Your task to perform on an android device: check android version Image 0: 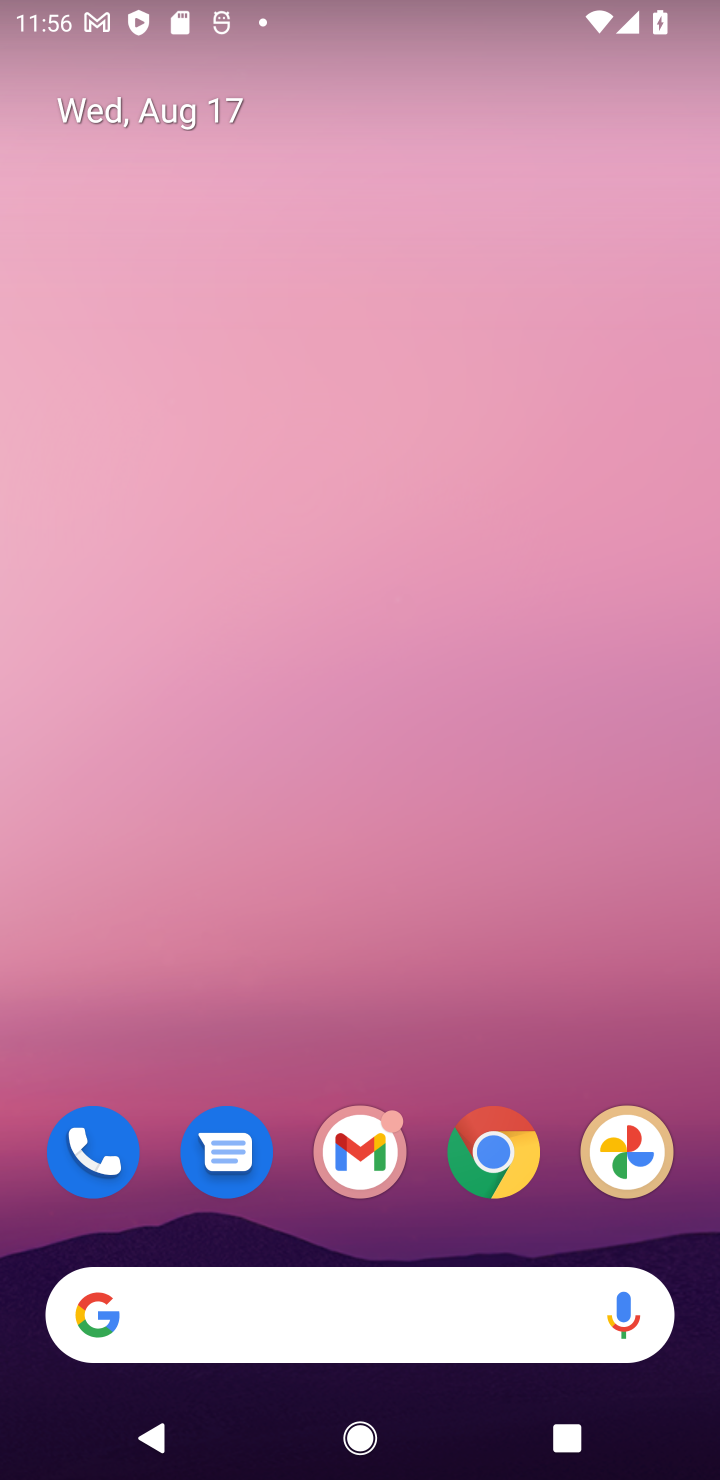
Step 0: drag from (579, 1179) to (357, 74)
Your task to perform on an android device: check android version Image 1: 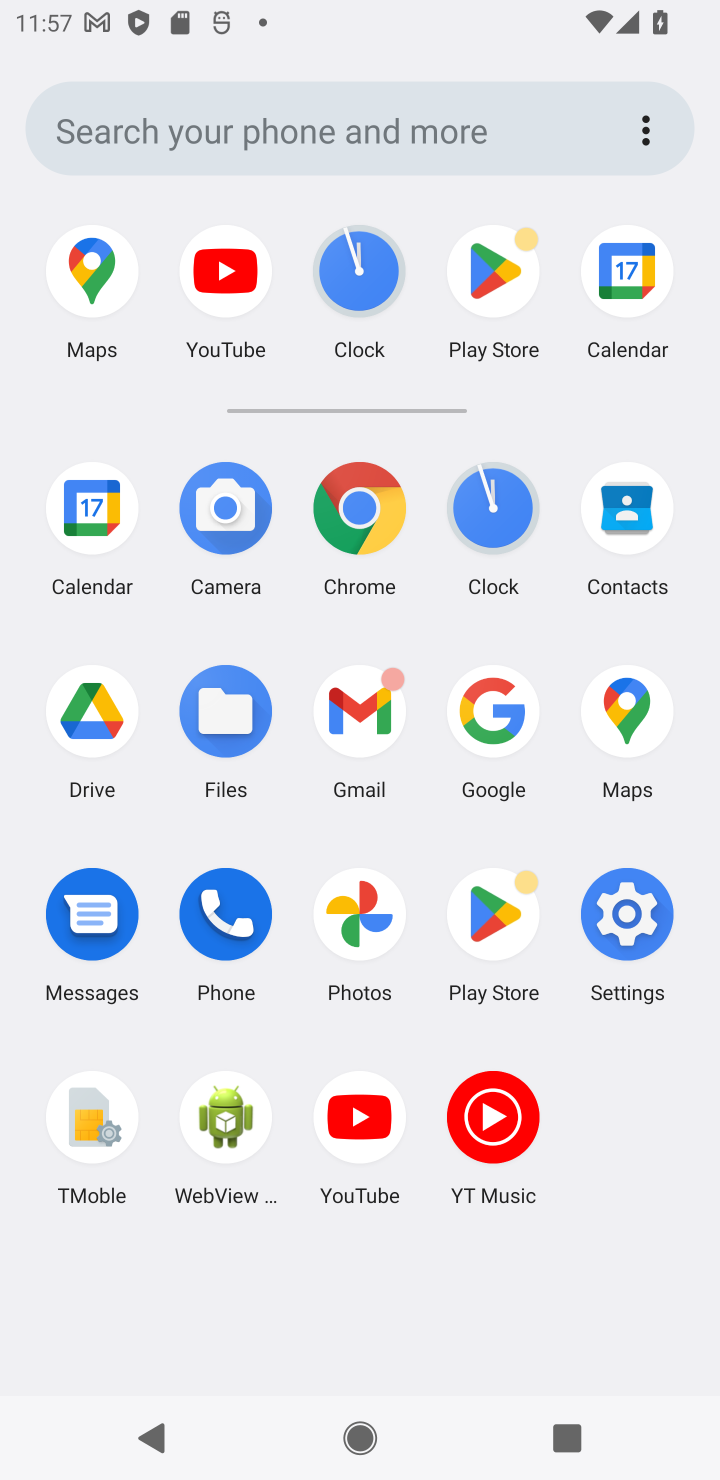
Step 1: click (612, 923)
Your task to perform on an android device: check android version Image 2: 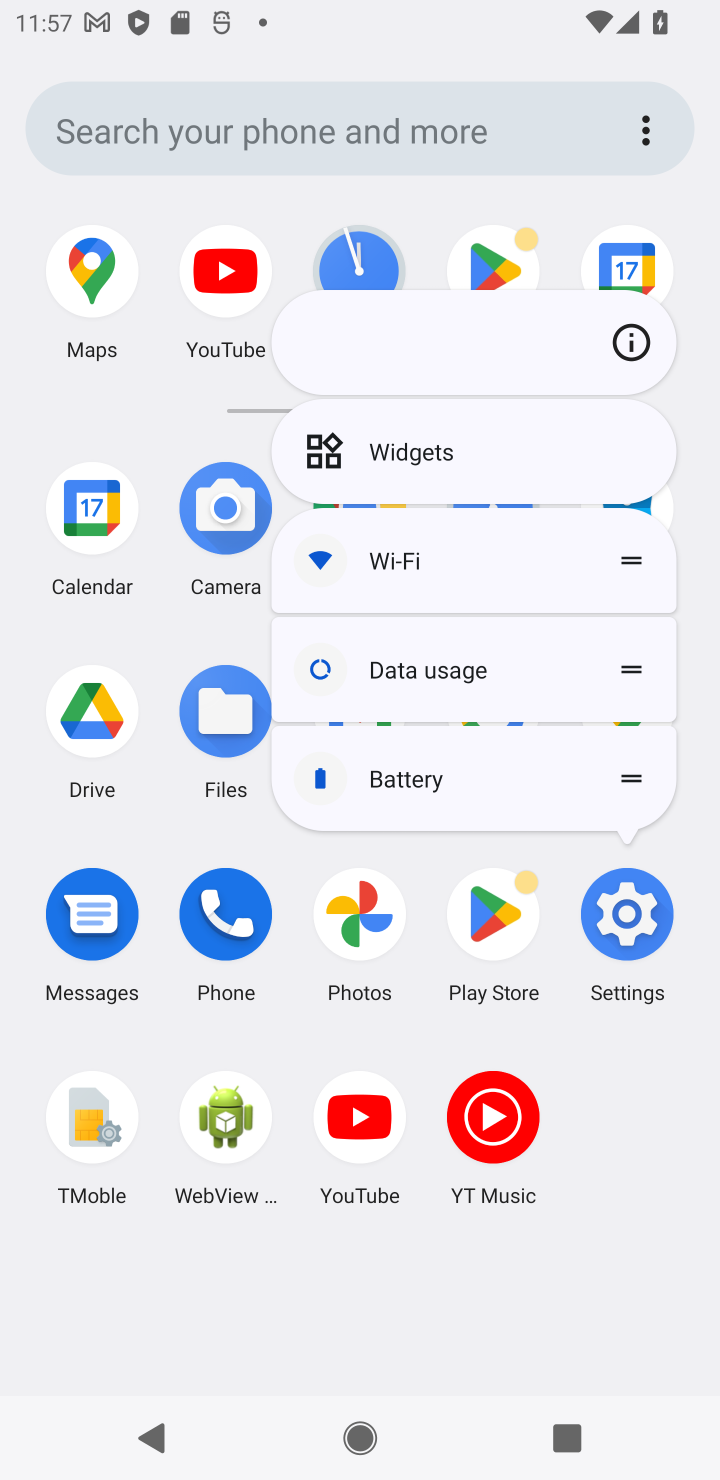
Step 2: click (616, 924)
Your task to perform on an android device: check android version Image 3: 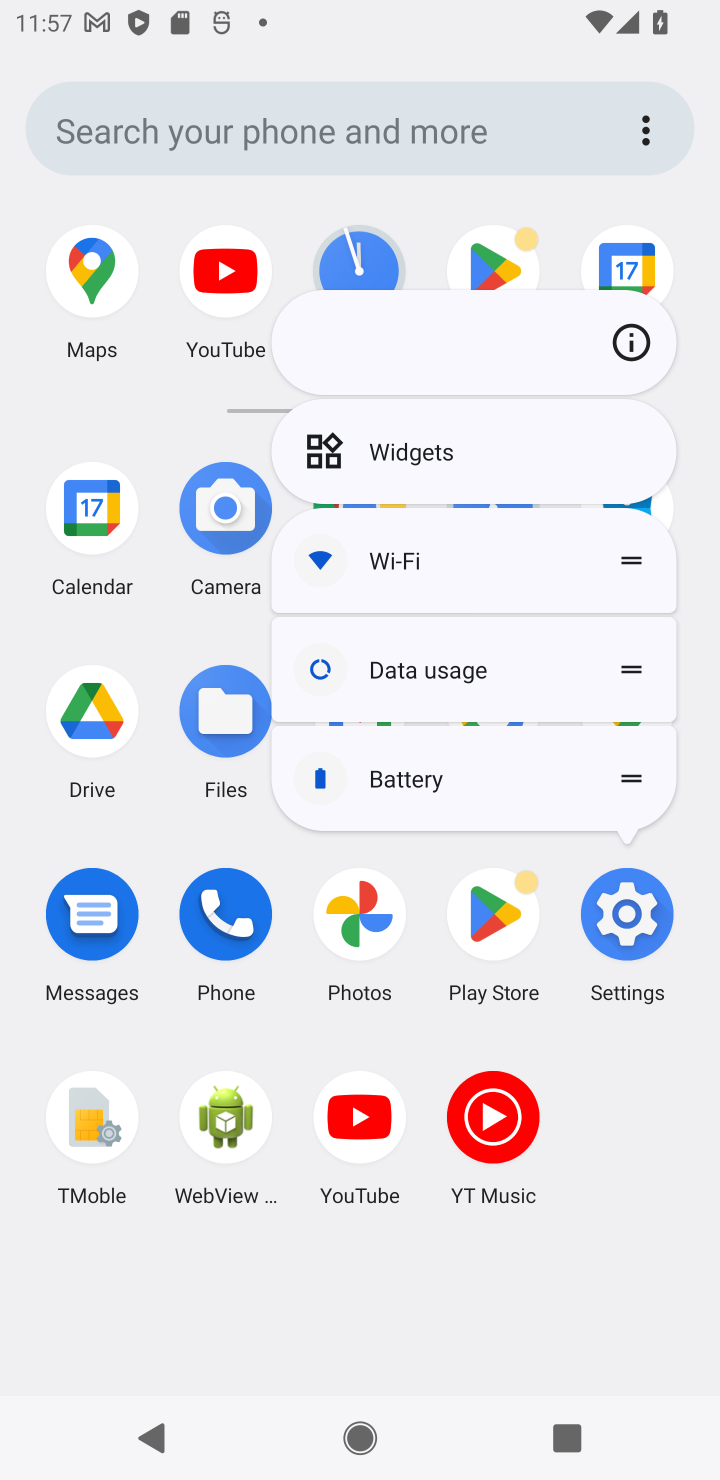
Step 3: click (656, 943)
Your task to perform on an android device: check android version Image 4: 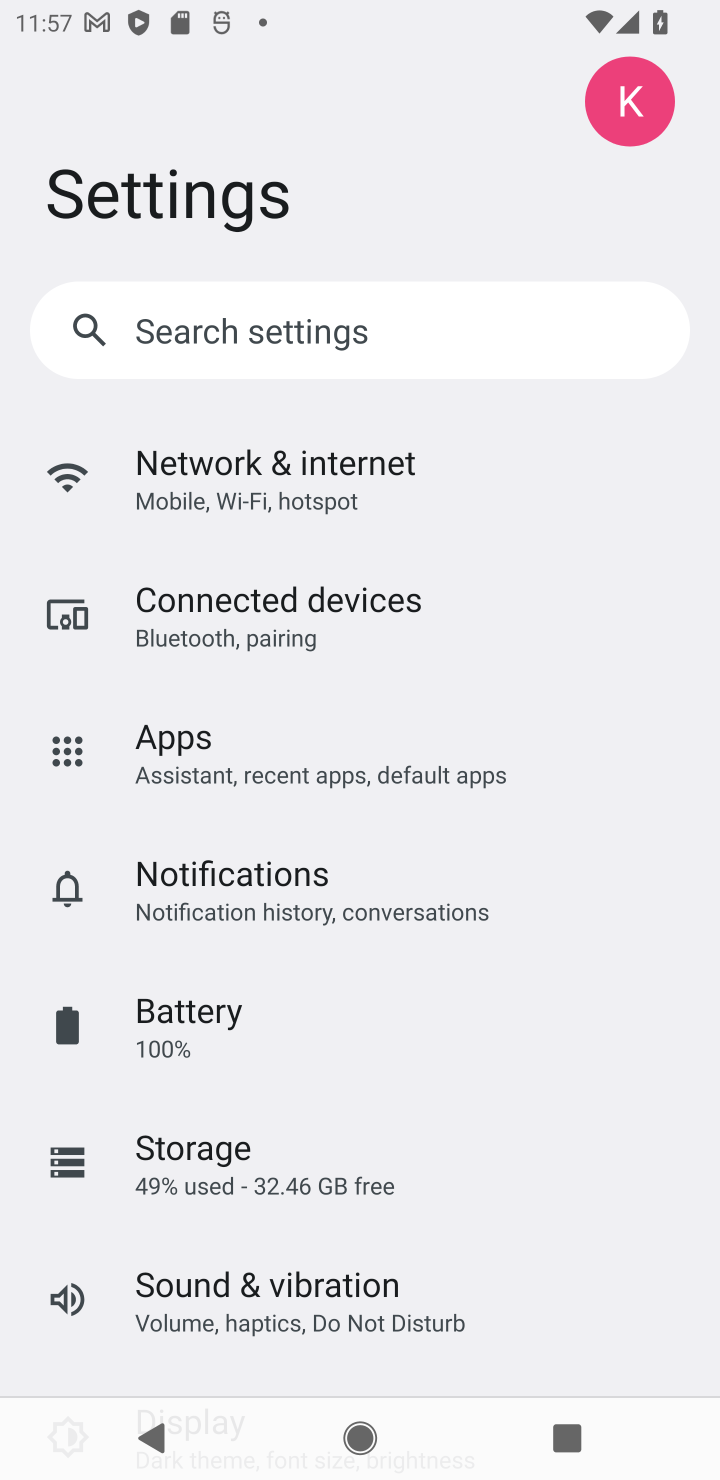
Step 4: drag from (284, 1301) to (266, 49)
Your task to perform on an android device: check android version Image 5: 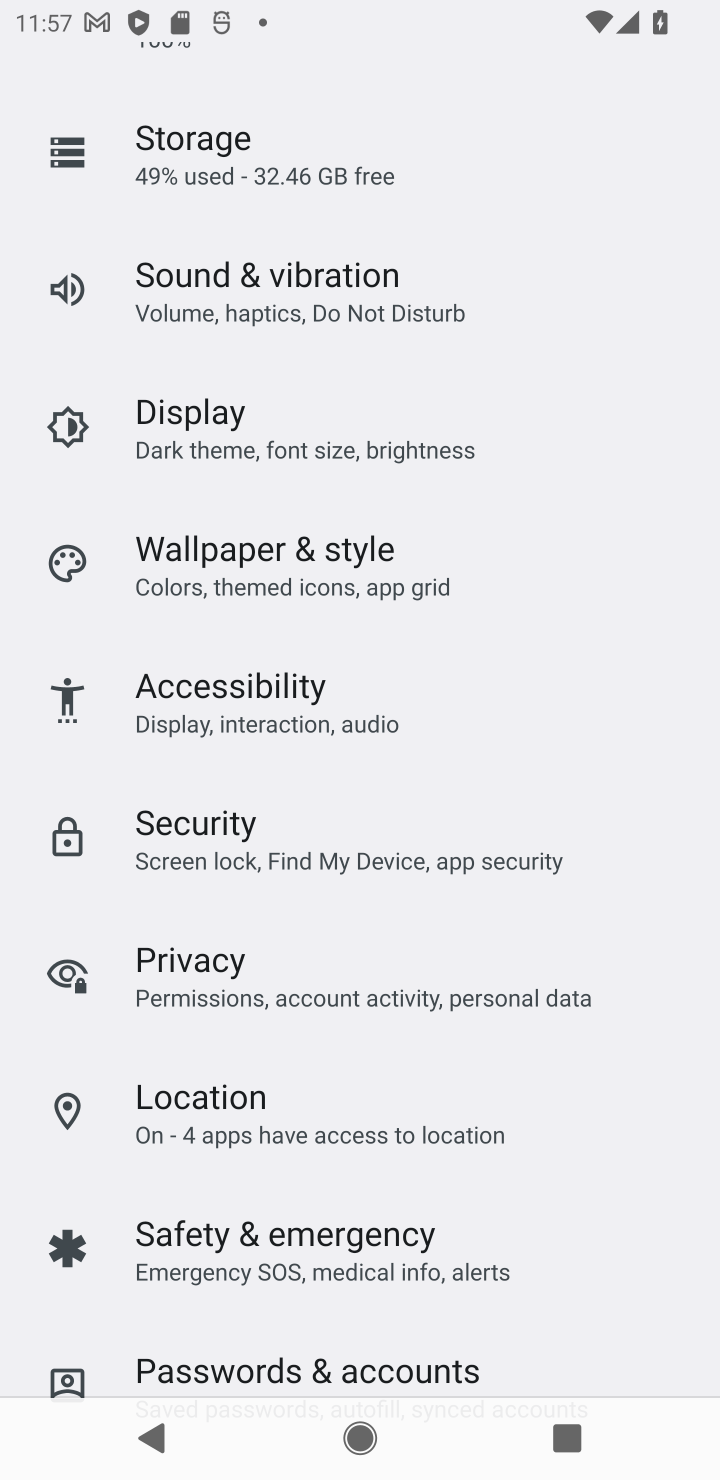
Step 5: drag from (320, 1273) to (205, 23)
Your task to perform on an android device: check android version Image 6: 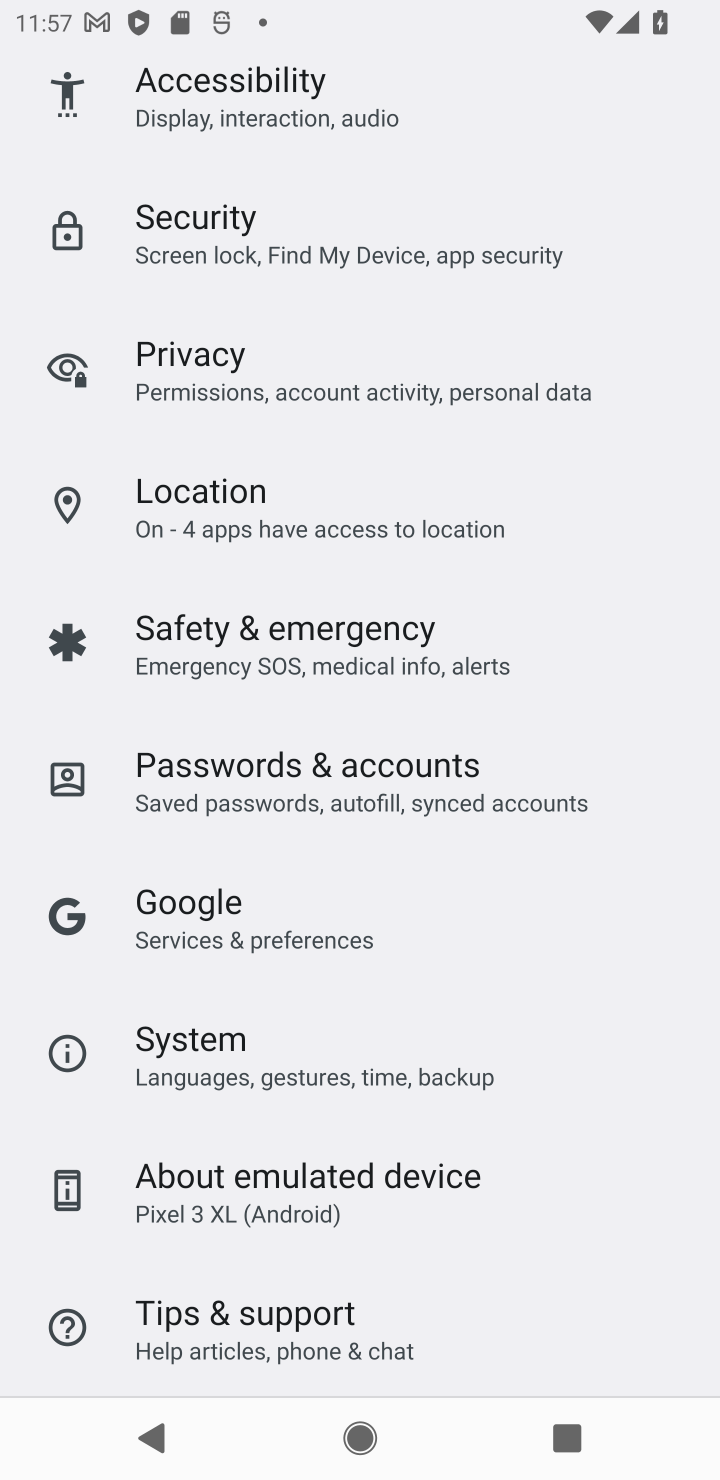
Step 6: drag from (284, 1271) to (191, 13)
Your task to perform on an android device: check android version Image 7: 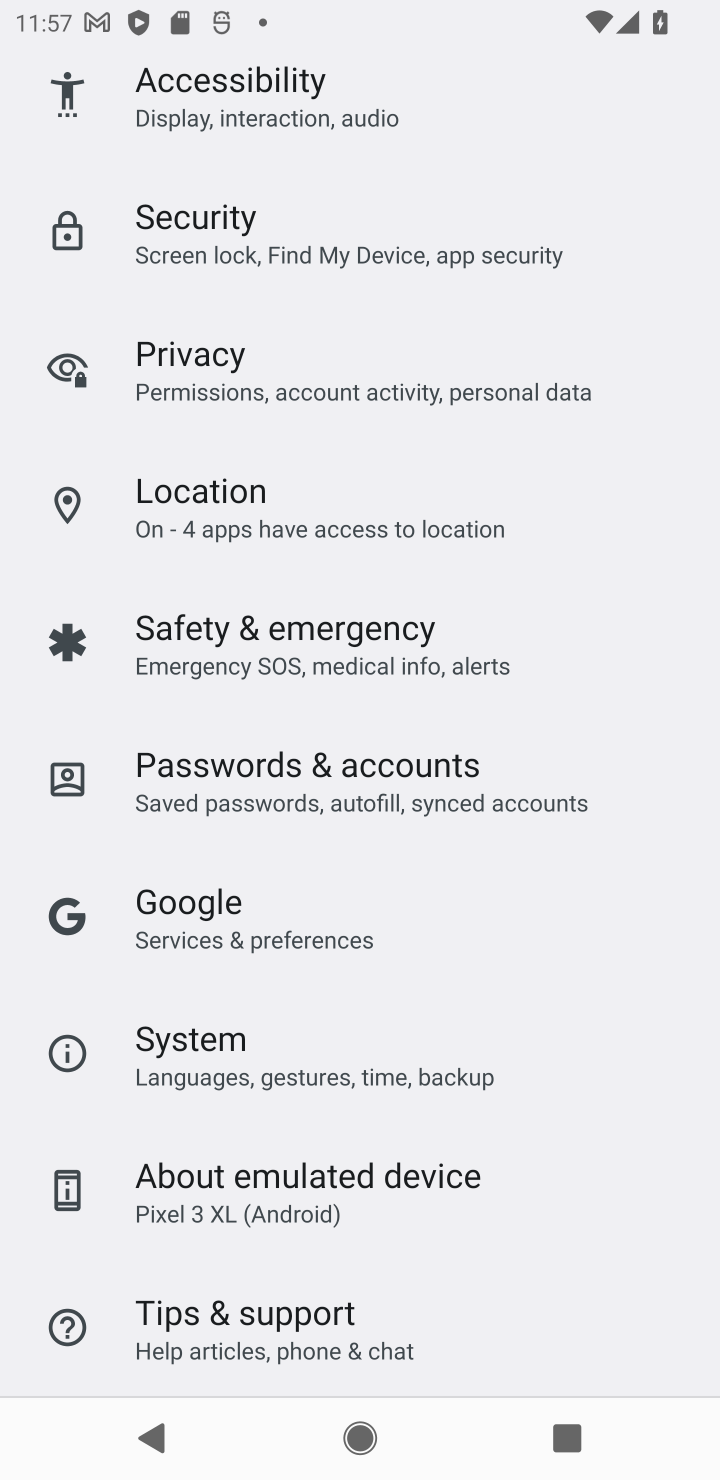
Step 7: click (388, 1206)
Your task to perform on an android device: check android version Image 8: 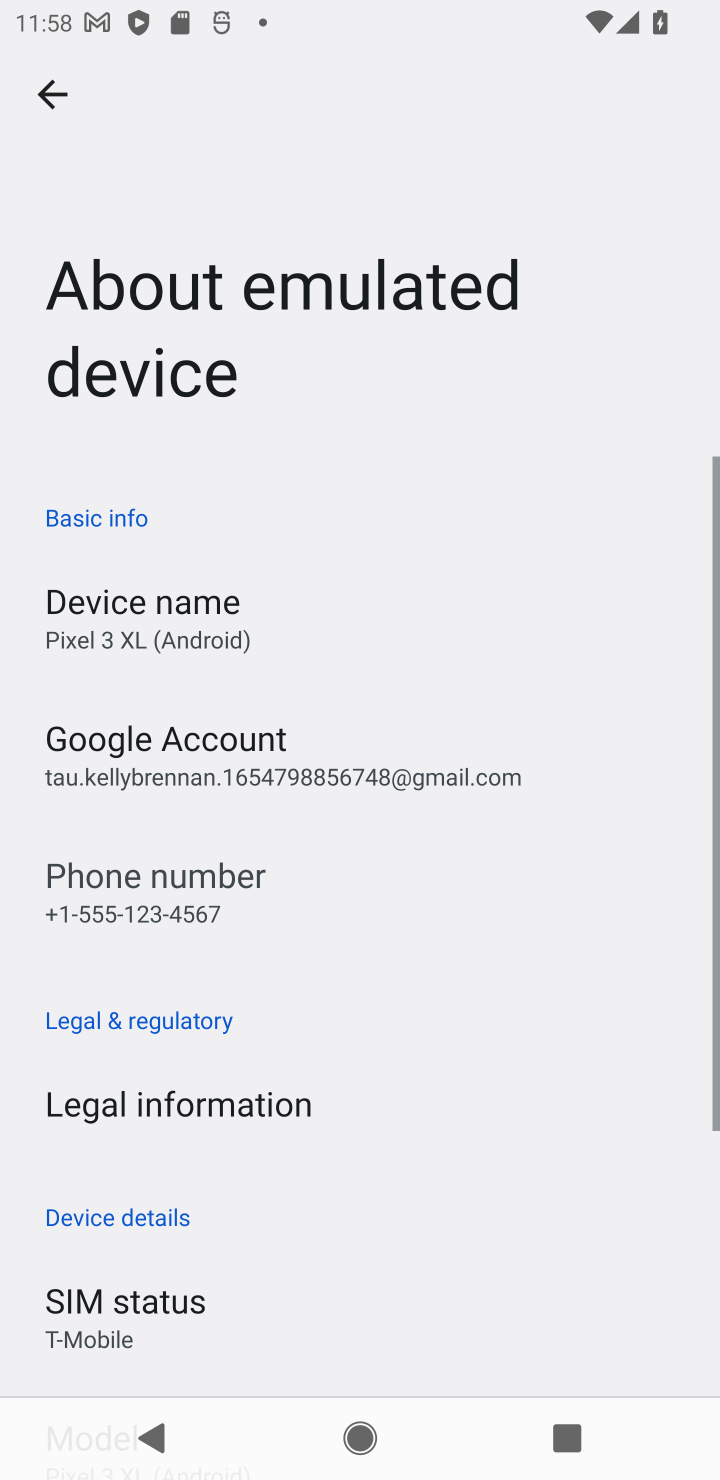
Step 8: drag from (226, 1338) to (184, 139)
Your task to perform on an android device: check android version Image 9: 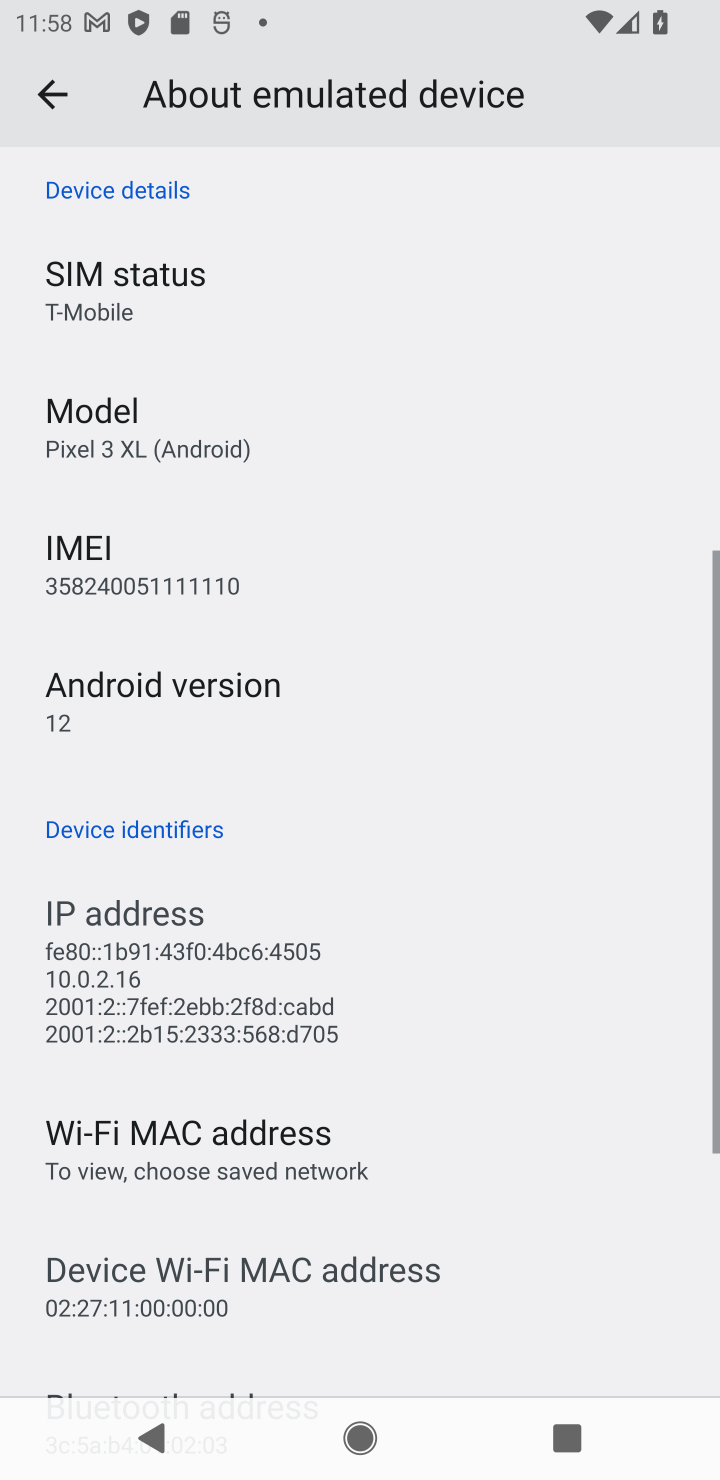
Step 9: click (169, 715)
Your task to perform on an android device: check android version Image 10: 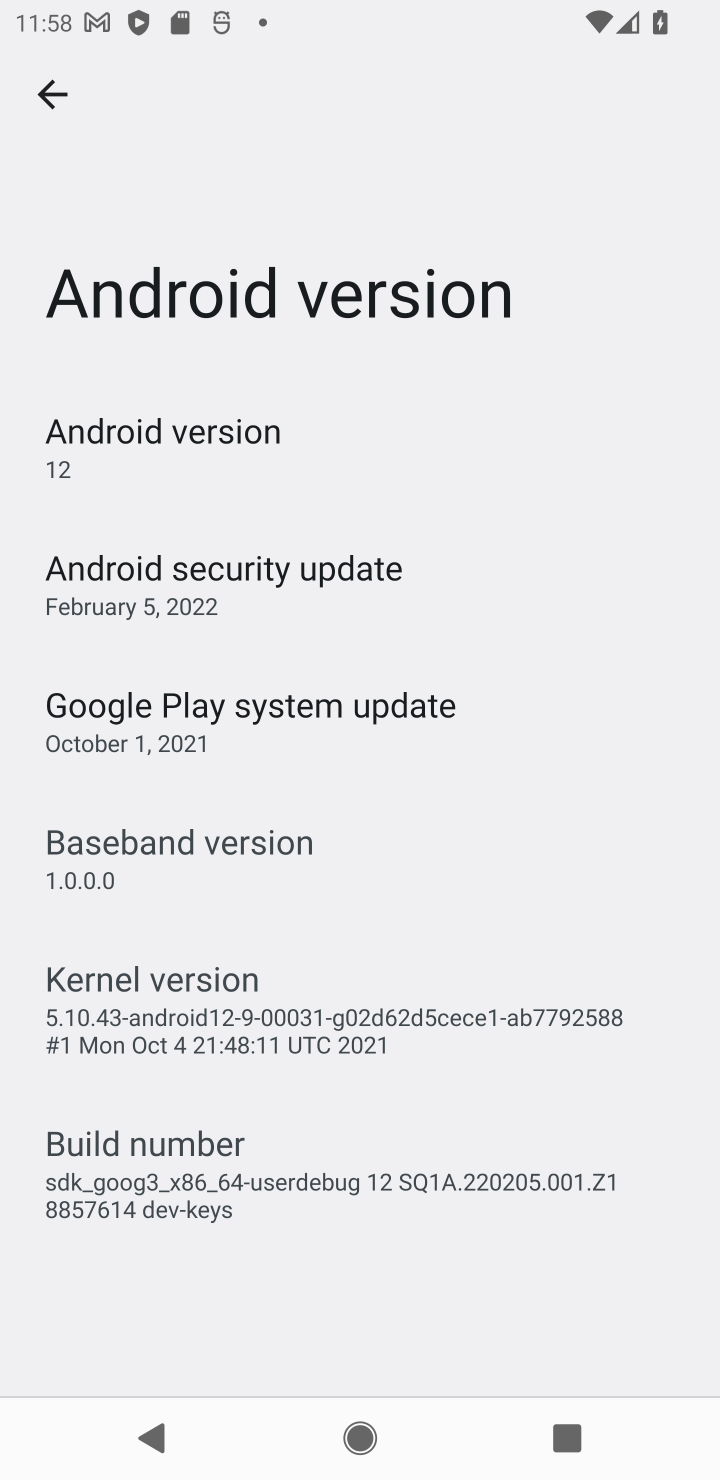
Step 10: task complete